Your task to perform on an android device: Open Google Image 0: 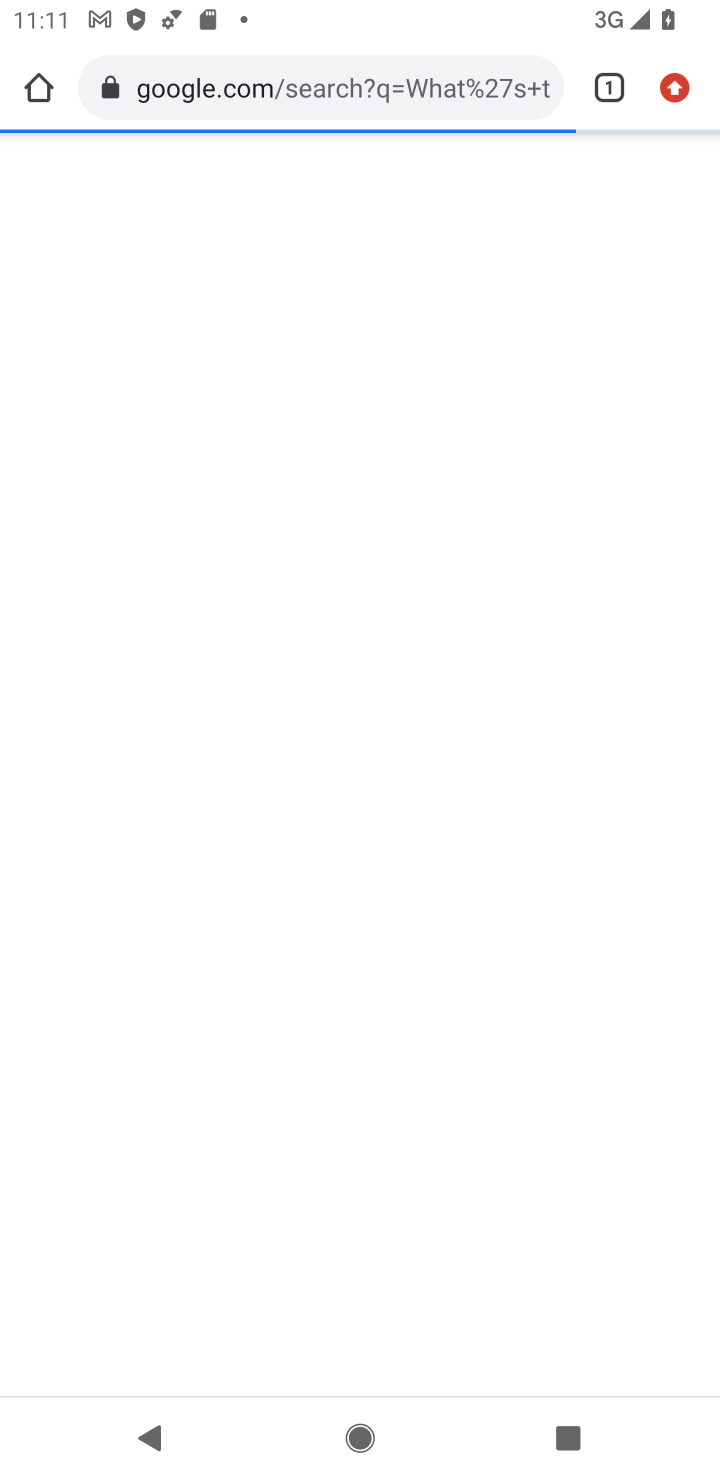
Step 0: press home button
Your task to perform on an android device: Open Google Image 1: 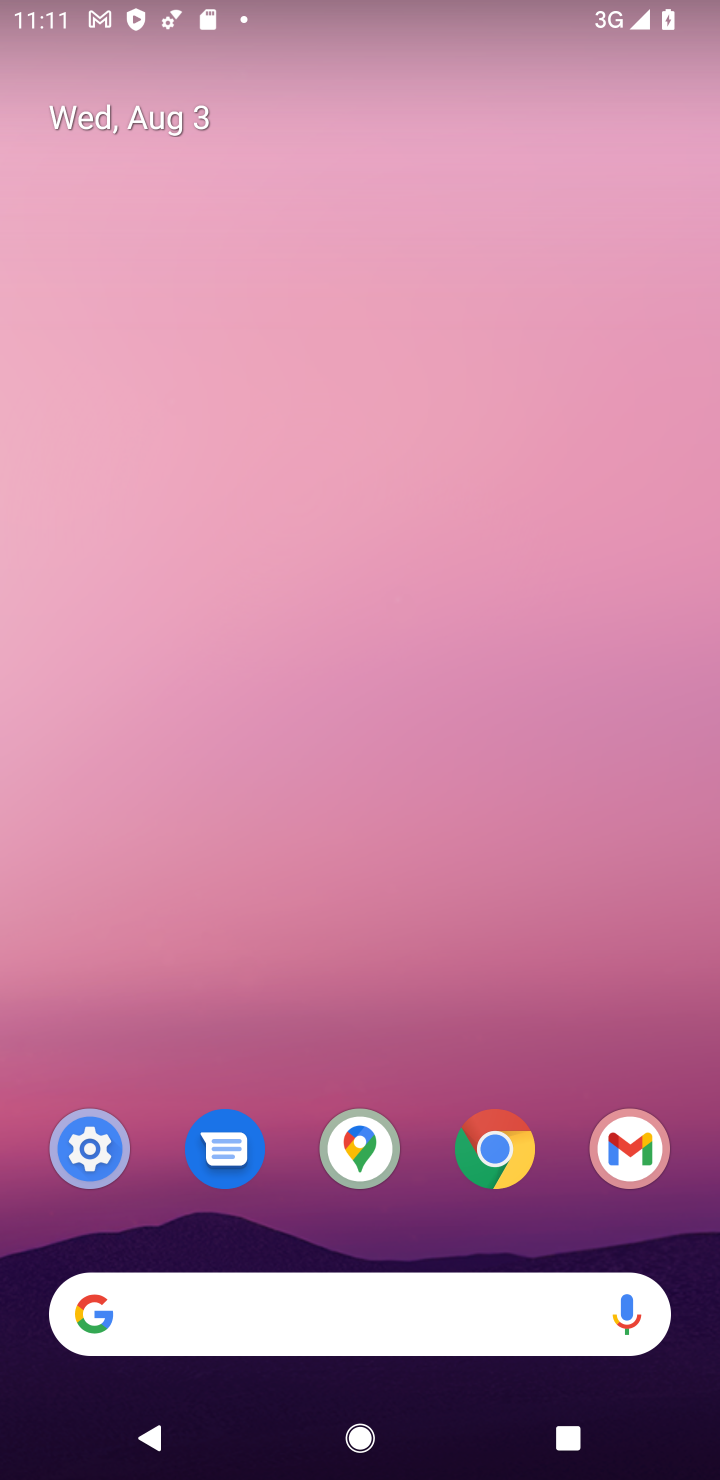
Step 1: drag from (527, 1032) to (309, 21)
Your task to perform on an android device: Open Google Image 2: 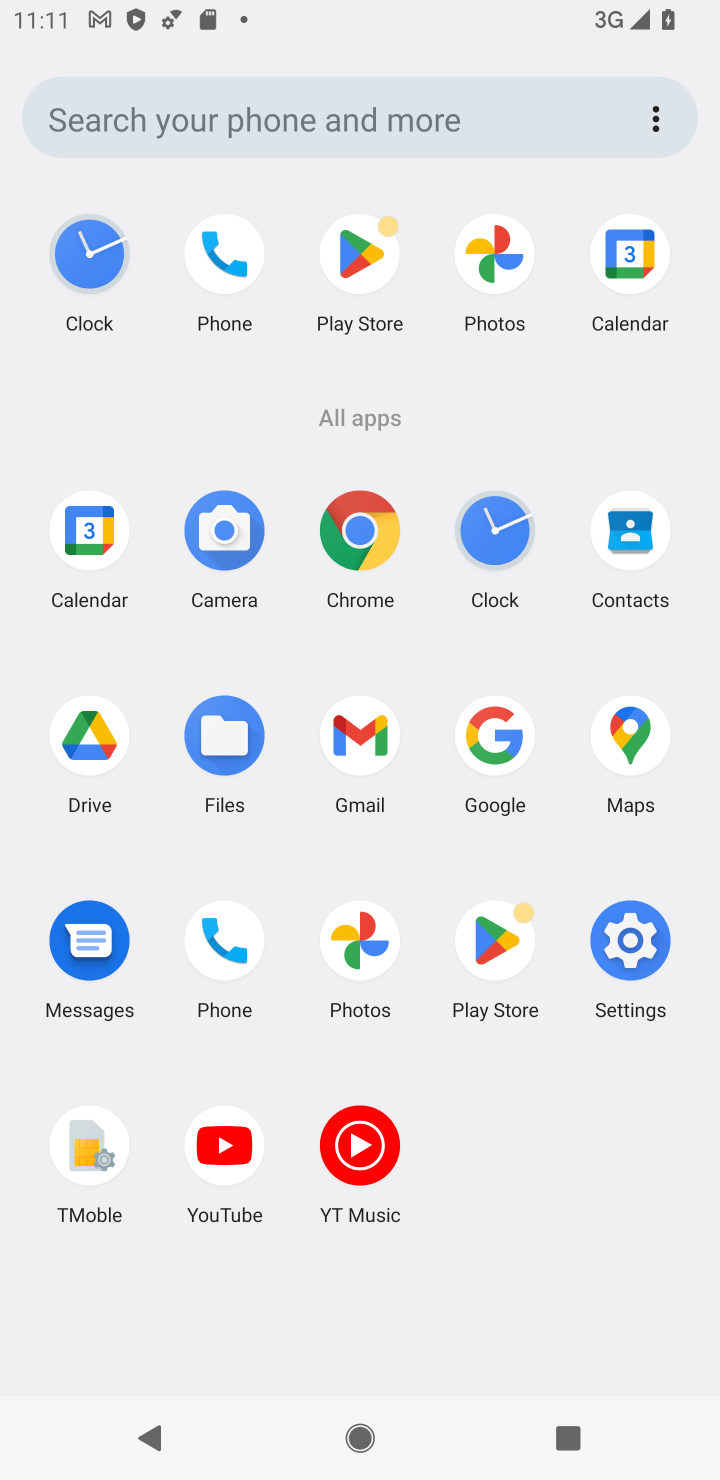
Step 2: click (496, 764)
Your task to perform on an android device: Open Google Image 3: 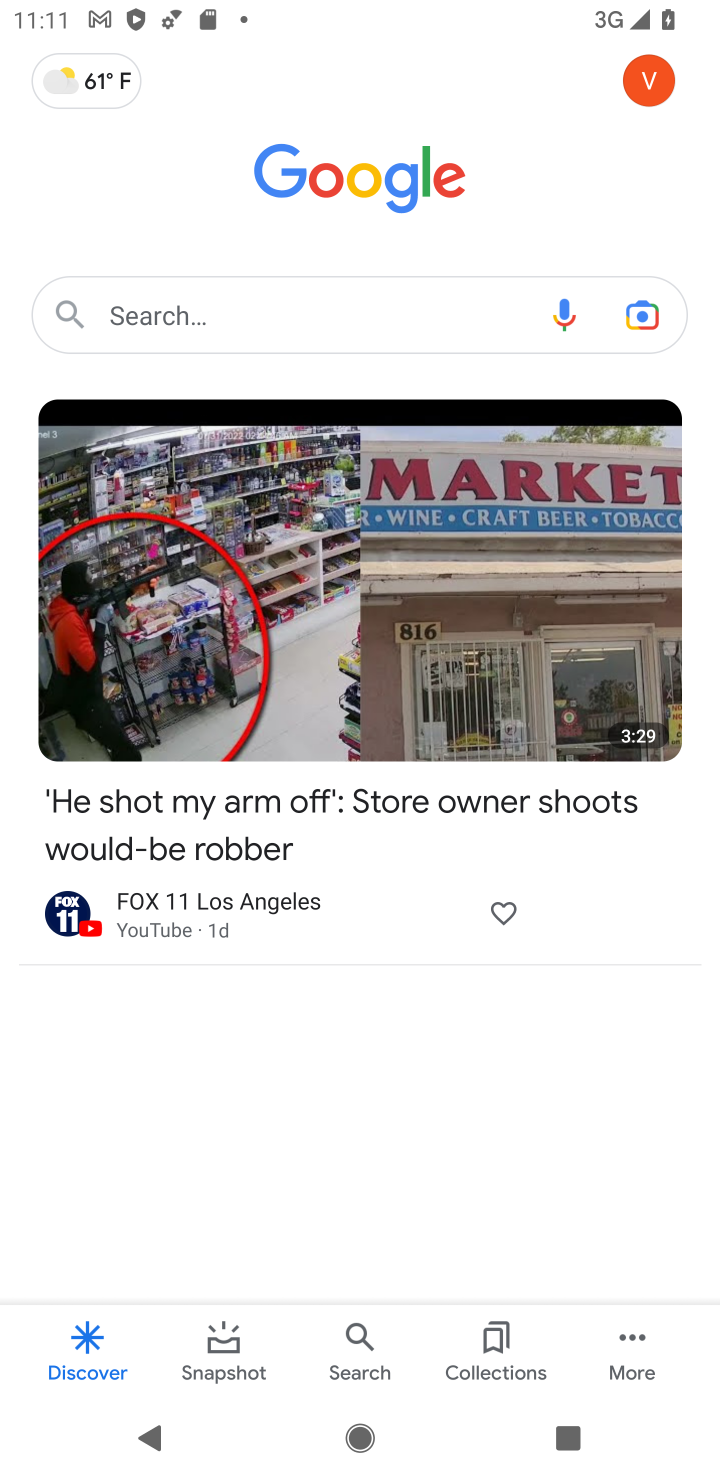
Step 3: task complete